Your task to perform on an android device: Open the phone app and click the voicemail tab. Image 0: 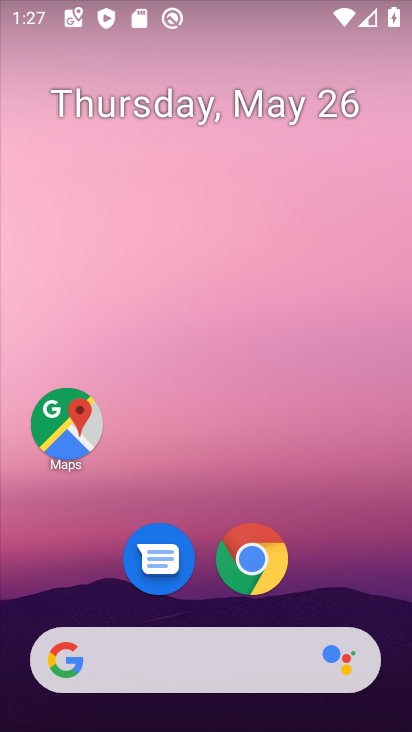
Step 0: press home button
Your task to perform on an android device: Open the phone app and click the voicemail tab. Image 1: 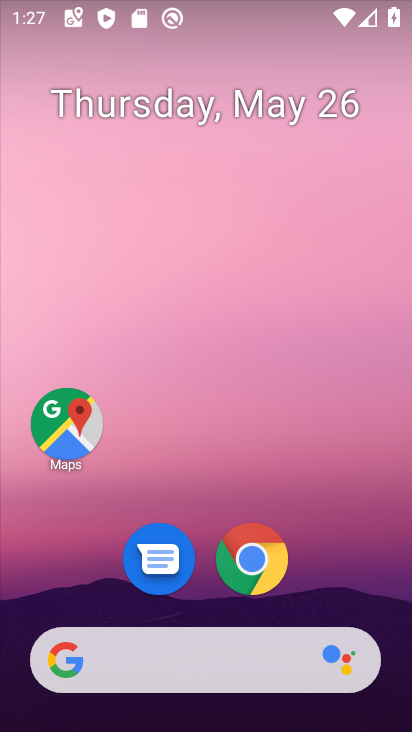
Step 1: drag from (143, 642) to (302, 77)
Your task to perform on an android device: Open the phone app and click the voicemail tab. Image 2: 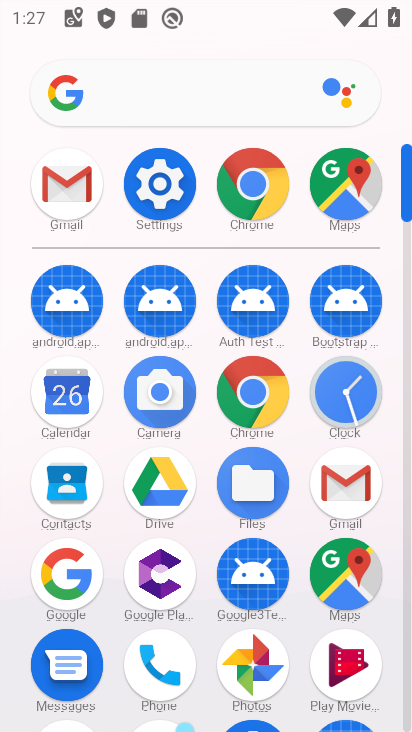
Step 2: drag from (202, 610) to (304, 180)
Your task to perform on an android device: Open the phone app and click the voicemail tab. Image 3: 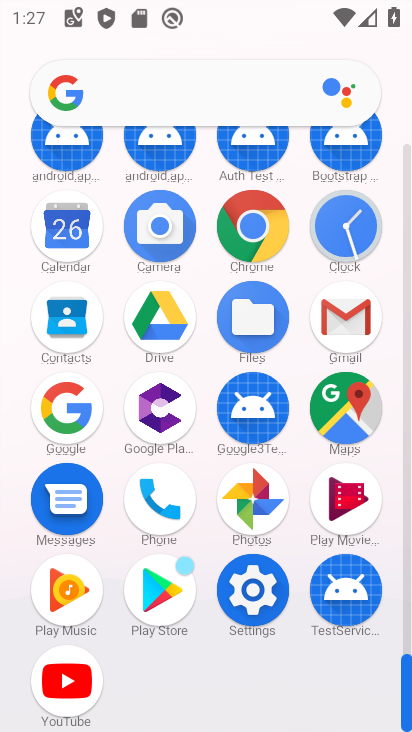
Step 3: click (156, 493)
Your task to perform on an android device: Open the phone app and click the voicemail tab. Image 4: 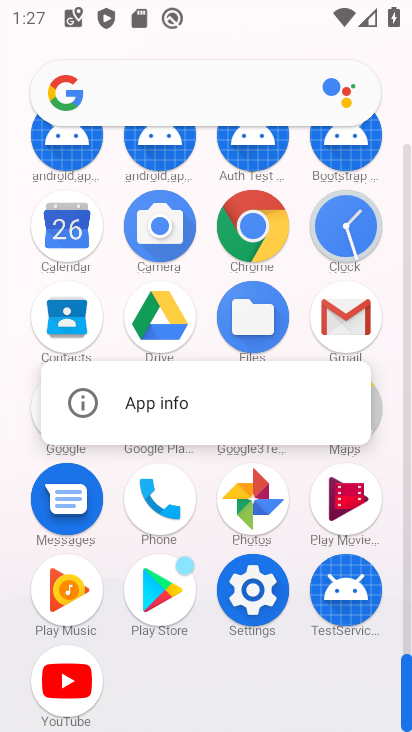
Step 4: click (161, 506)
Your task to perform on an android device: Open the phone app and click the voicemail tab. Image 5: 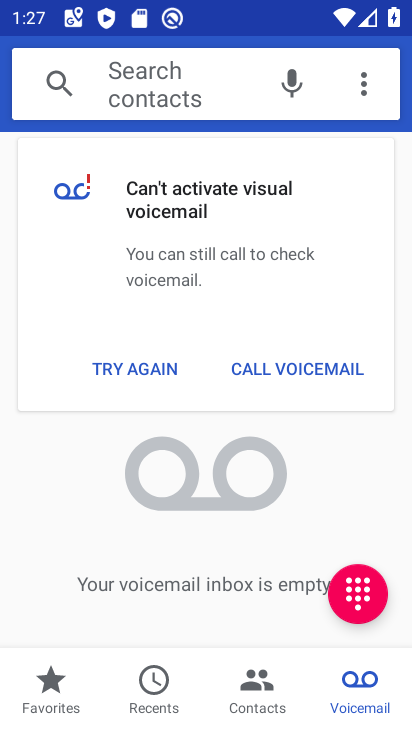
Step 5: click (362, 692)
Your task to perform on an android device: Open the phone app and click the voicemail tab. Image 6: 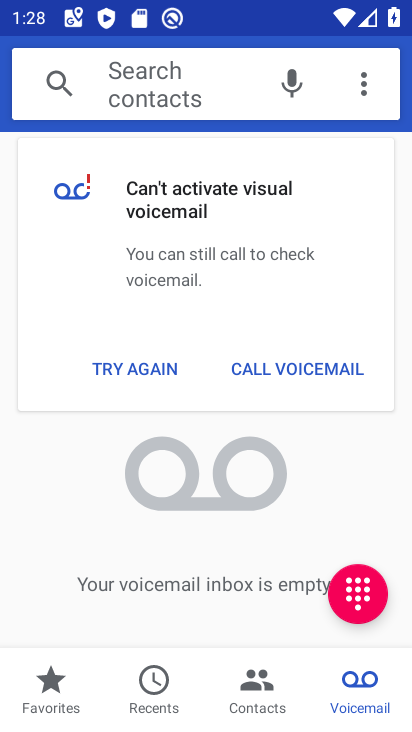
Step 6: task complete